Your task to perform on an android device: Set the phone to "Do not disturb". Image 0: 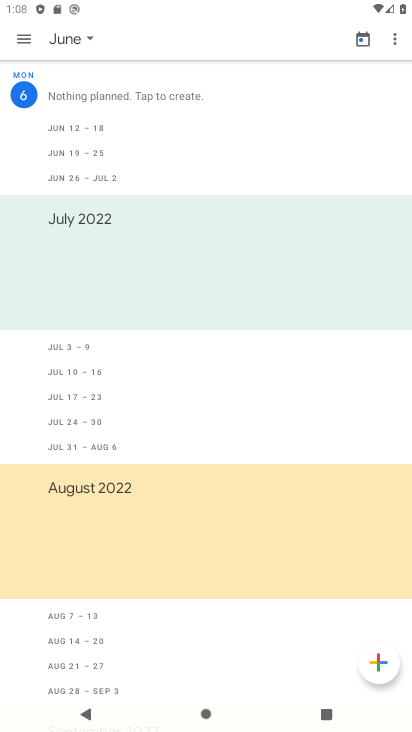
Step 0: press home button
Your task to perform on an android device: Set the phone to "Do not disturb". Image 1: 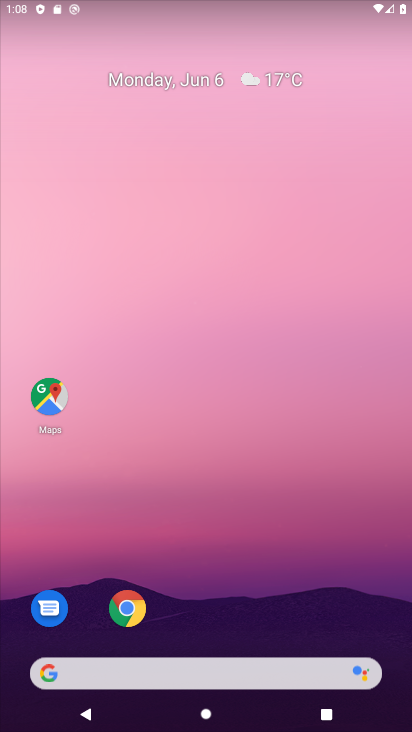
Step 1: drag from (254, 599) to (243, 78)
Your task to perform on an android device: Set the phone to "Do not disturb". Image 2: 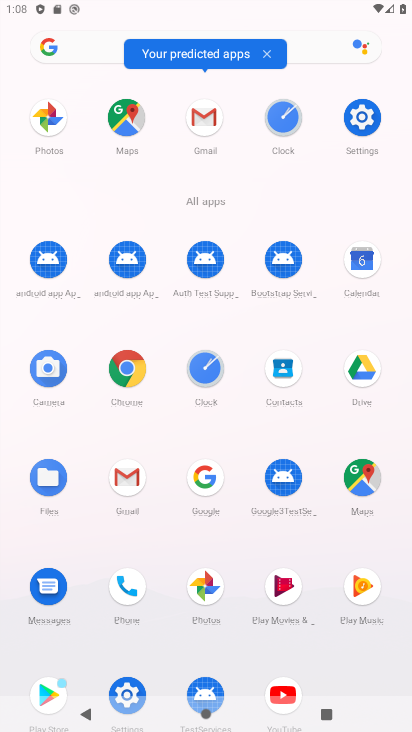
Step 2: click (365, 106)
Your task to perform on an android device: Set the phone to "Do not disturb". Image 3: 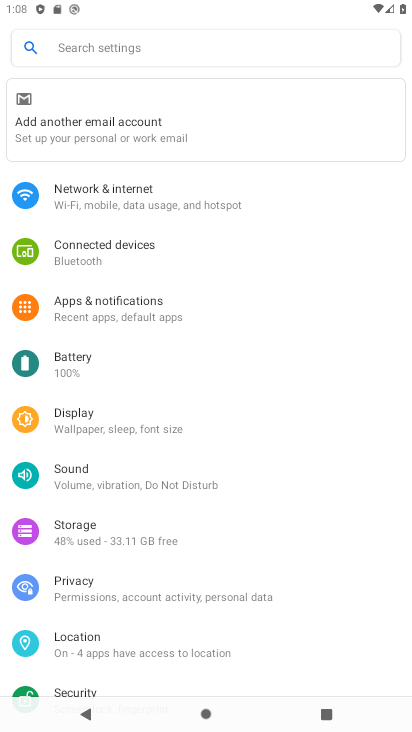
Step 3: click (202, 488)
Your task to perform on an android device: Set the phone to "Do not disturb". Image 4: 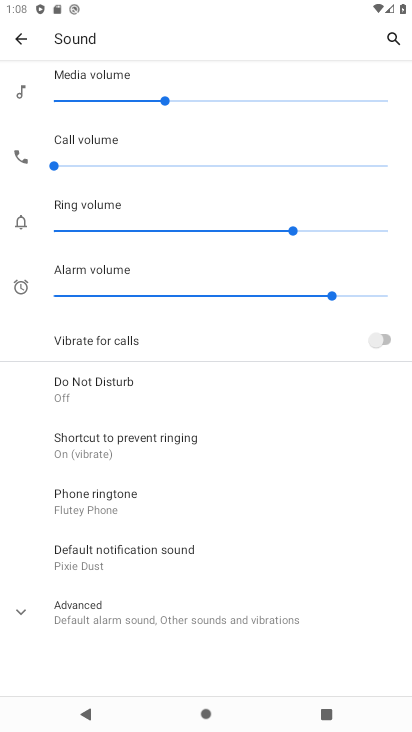
Step 4: click (196, 391)
Your task to perform on an android device: Set the phone to "Do not disturb". Image 5: 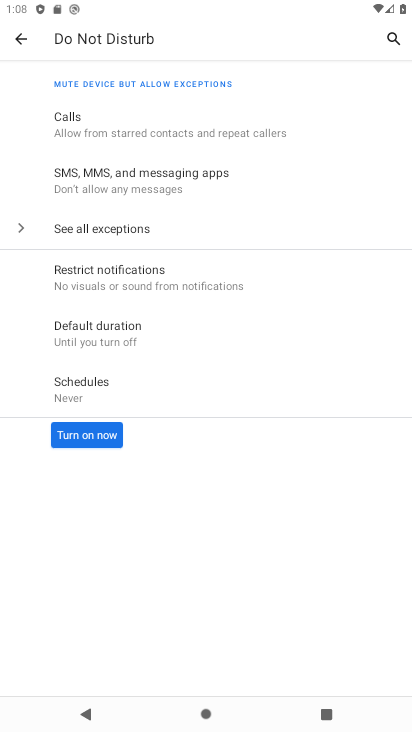
Step 5: click (89, 439)
Your task to perform on an android device: Set the phone to "Do not disturb". Image 6: 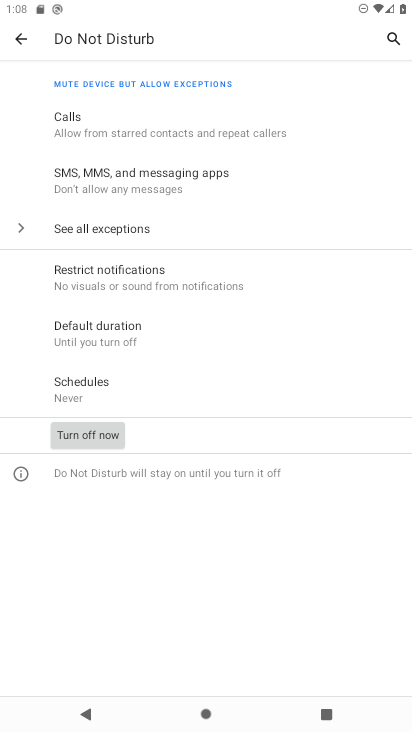
Step 6: task complete